Your task to perform on an android device: change the clock style Image 0: 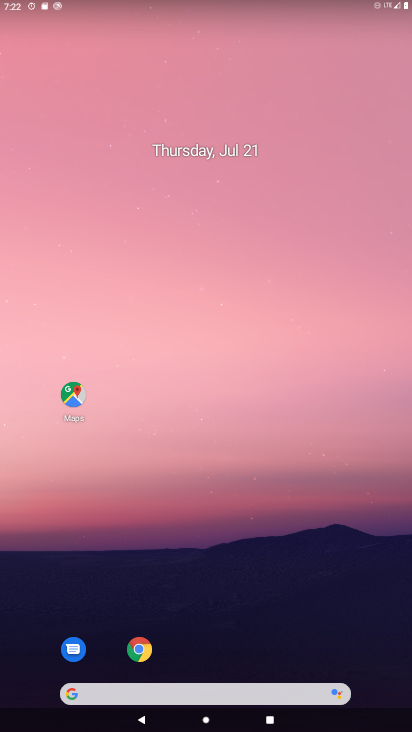
Step 0: drag from (348, 624) to (155, 65)
Your task to perform on an android device: change the clock style Image 1: 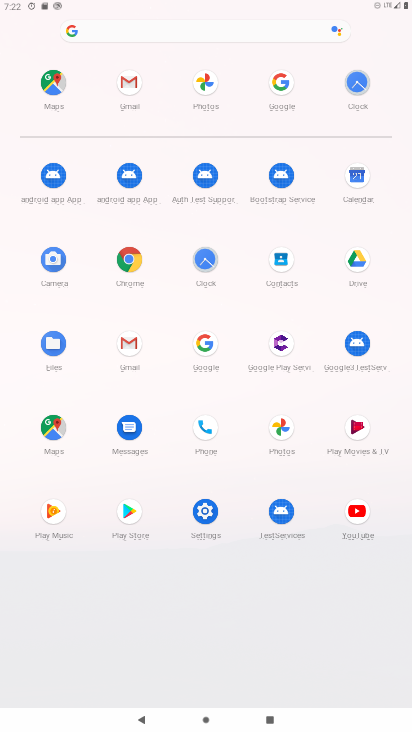
Step 1: click (189, 267)
Your task to perform on an android device: change the clock style Image 2: 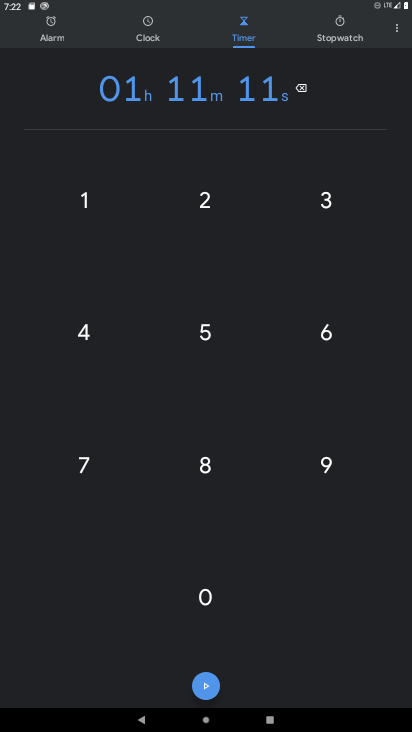
Step 2: click (389, 26)
Your task to perform on an android device: change the clock style Image 3: 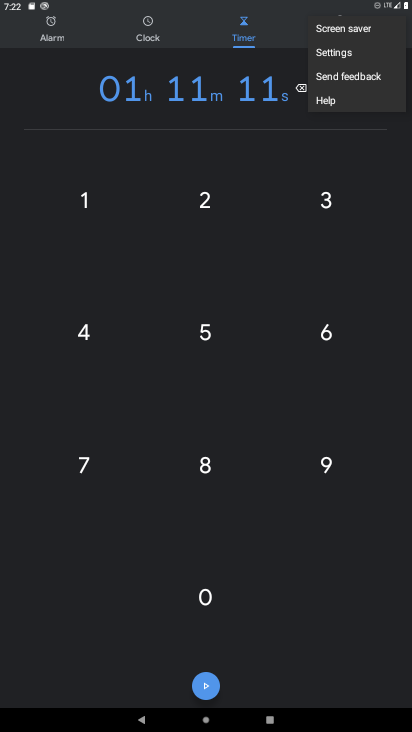
Step 3: click (329, 48)
Your task to perform on an android device: change the clock style Image 4: 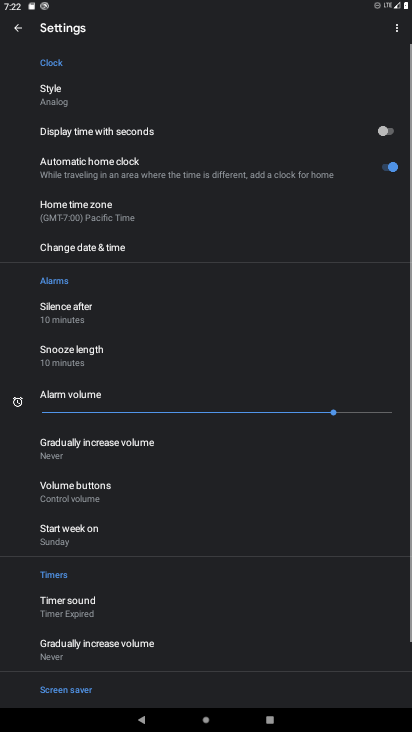
Step 4: click (63, 97)
Your task to perform on an android device: change the clock style Image 5: 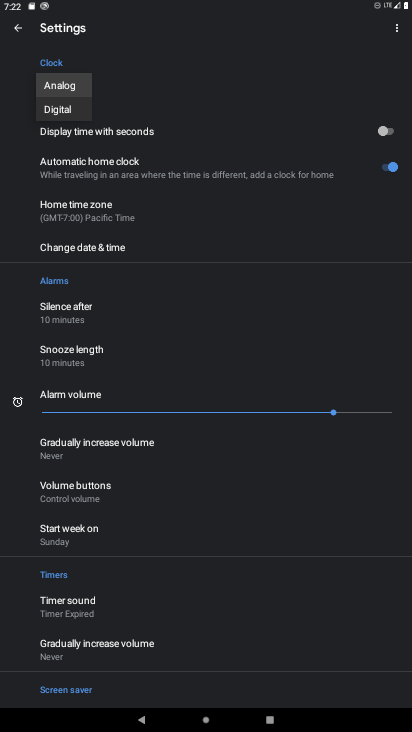
Step 5: click (62, 105)
Your task to perform on an android device: change the clock style Image 6: 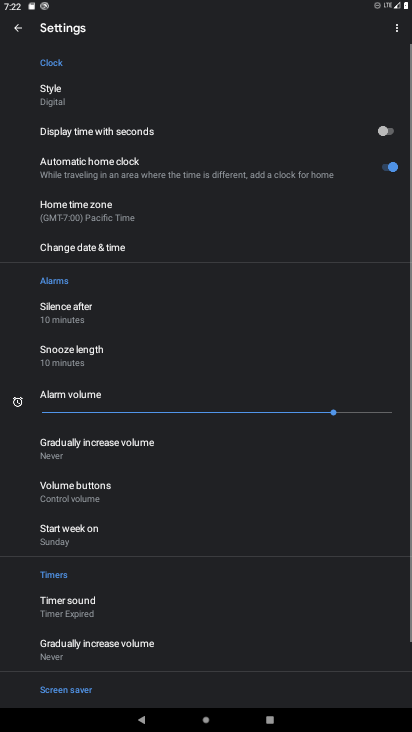
Step 6: task complete